Your task to perform on an android device: Open the stopwatch Image 0: 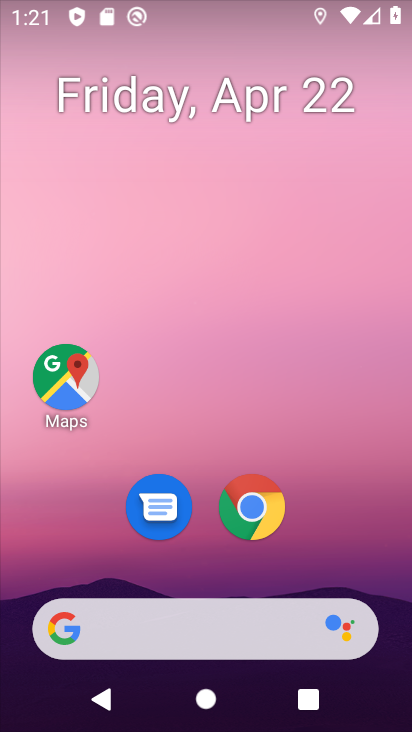
Step 0: drag from (188, 627) to (262, 46)
Your task to perform on an android device: Open the stopwatch Image 1: 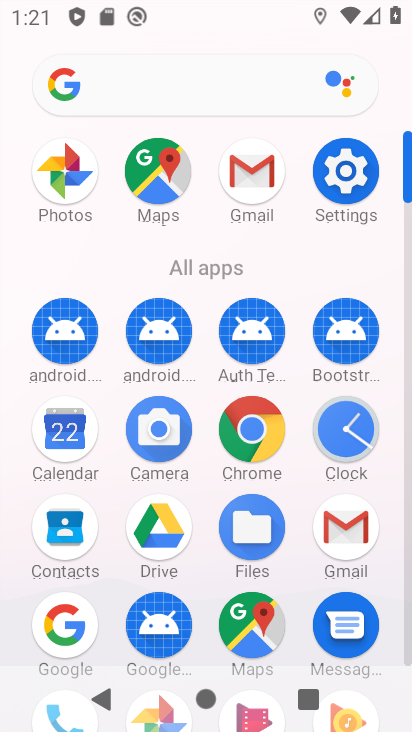
Step 1: click (336, 441)
Your task to perform on an android device: Open the stopwatch Image 2: 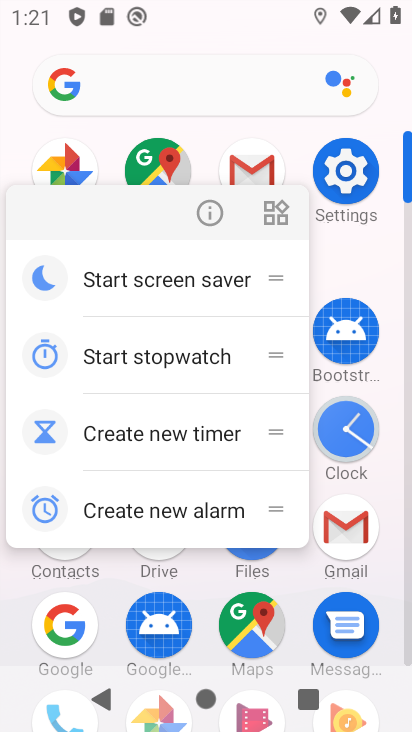
Step 2: click (355, 437)
Your task to perform on an android device: Open the stopwatch Image 3: 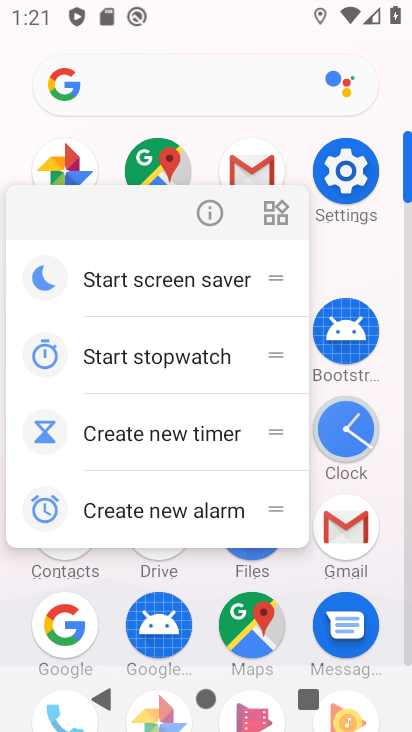
Step 3: click (355, 437)
Your task to perform on an android device: Open the stopwatch Image 4: 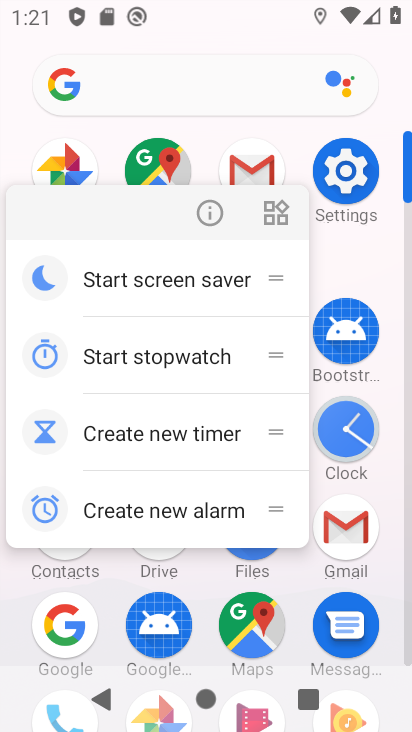
Step 4: click (347, 437)
Your task to perform on an android device: Open the stopwatch Image 5: 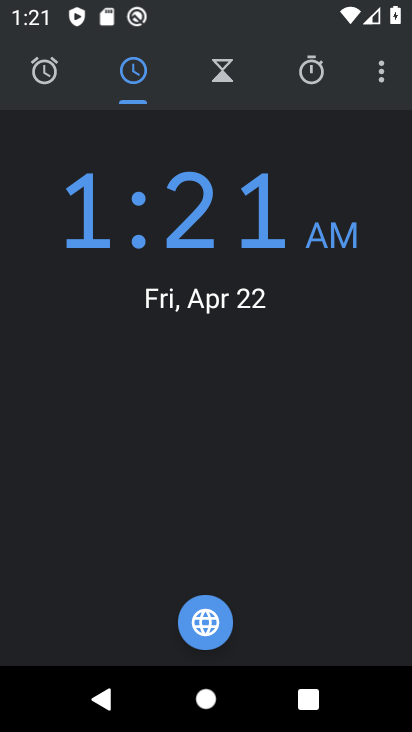
Step 5: click (309, 72)
Your task to perform on an android device: Open the stopwatch Image 6: 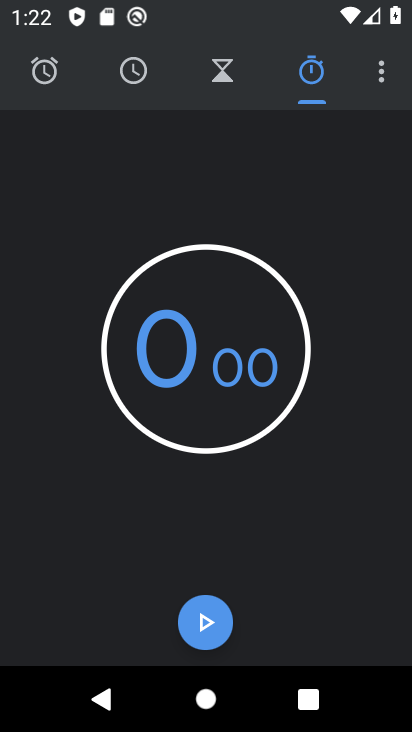
Step 6: task complete